Your task to perform on an android device: Toggle the flashlight Image 0: 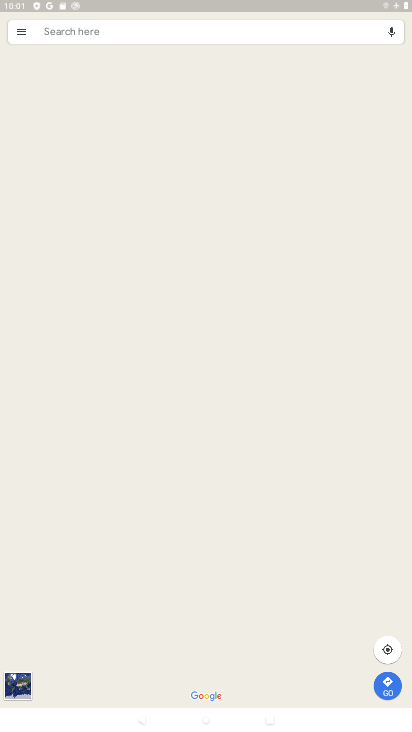
Step 0: press home button
Your task to perform on an android device: Toggle the flashlight Image 1: 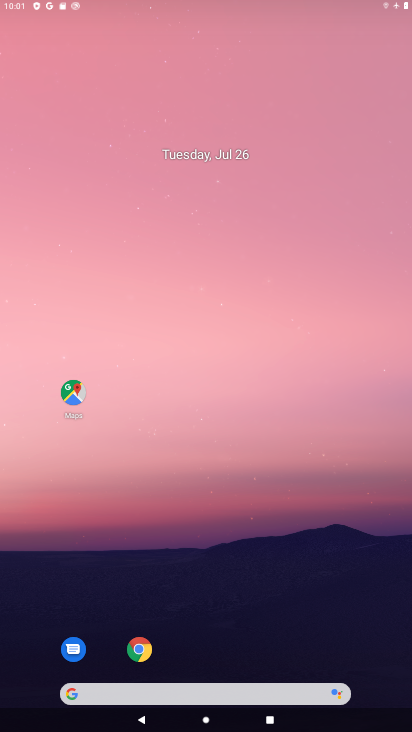
Step 1: drag from (182, 5) to (218, 506)
Your task to perform on an android device: Toggle the flashlight Image 2: 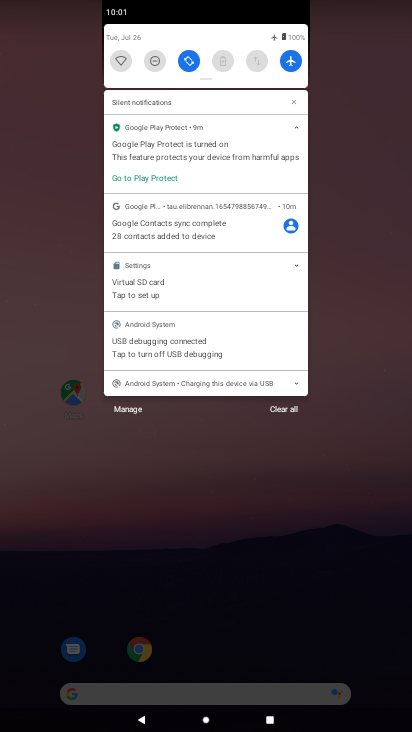
Step 2: drag from (197, 41) to (246, 563)
Your task to perform on an android device: Toggle the flashlight Image 3: 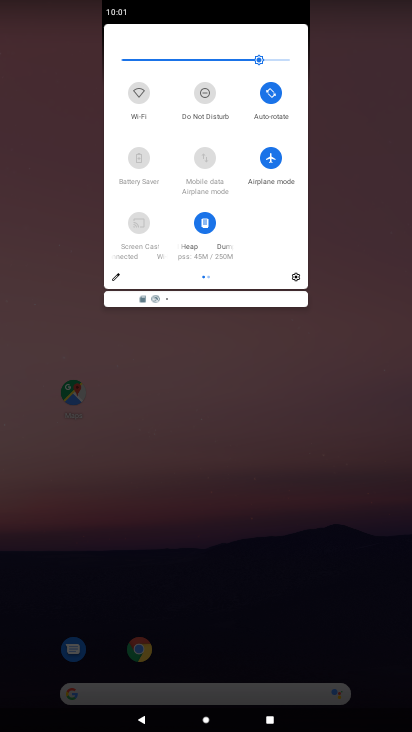
Step 3: click (116, 275)
Your task to perform on an android device: Toggle the flashlight Image 4: 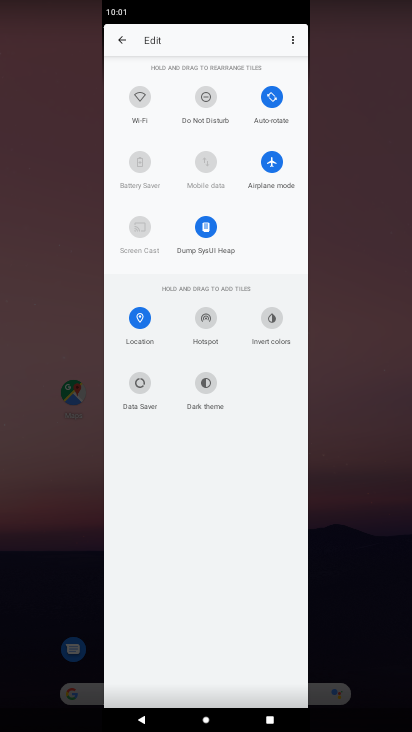
Step 4: task complete